Your task to perform on an android device: Open Google Chrome and click the shortcut for Amazon.com Image 0: 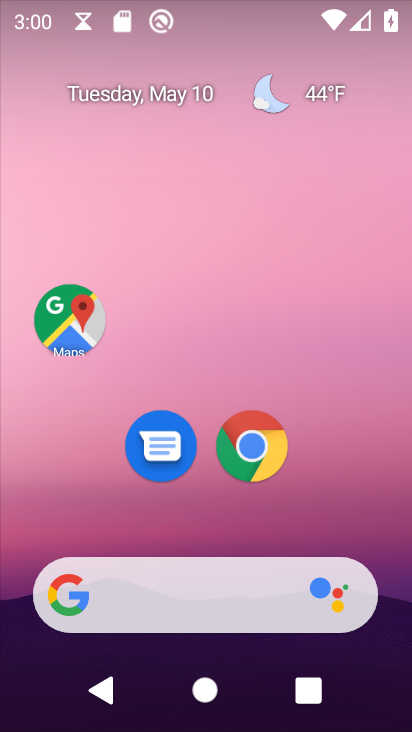
Step 0: drag from (376, 405) to (405, 147)
Your task to perform on an android device: Open Google Chrome and click the shortcut for Amazon.com Image 1: 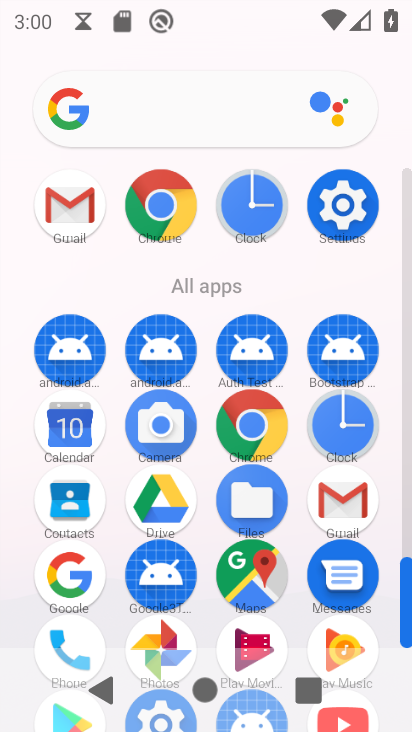
Step 1: click (134, 228)
Your task to perform on an android device: Open Google Chrome and click the shortcut for Amazon.com Image 2: 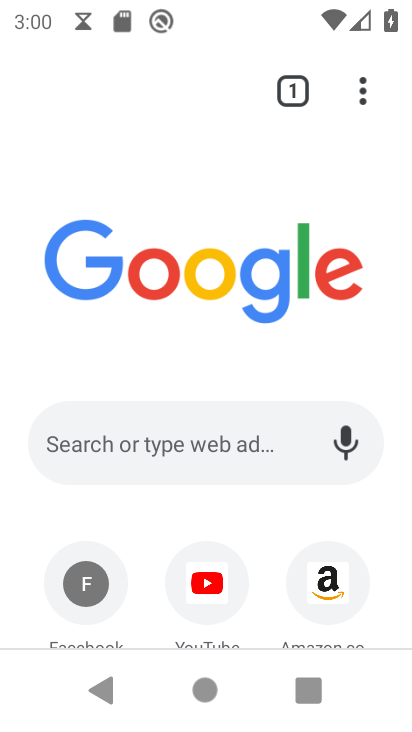
Step 2: drag from (399, 548) to (373, 169)
Your task to perform on an android device: Open Google Chrome and click the shortcut for Amazon.com Image 3: 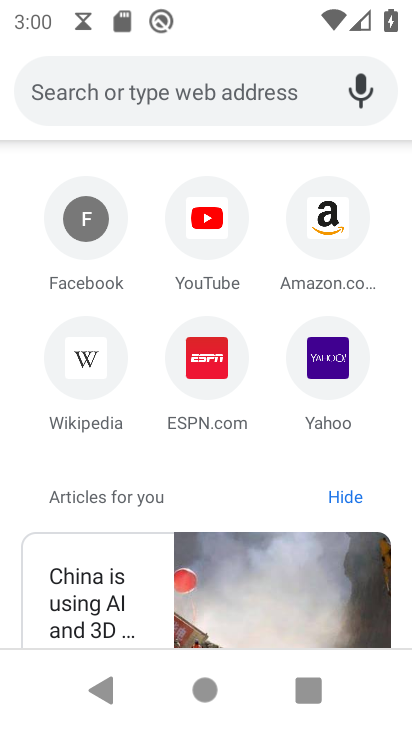
Step 3: click (319, 235)
Your task to perform on an android device: Open Google Chrome and click the shortcut for Amazon.com Image 4: 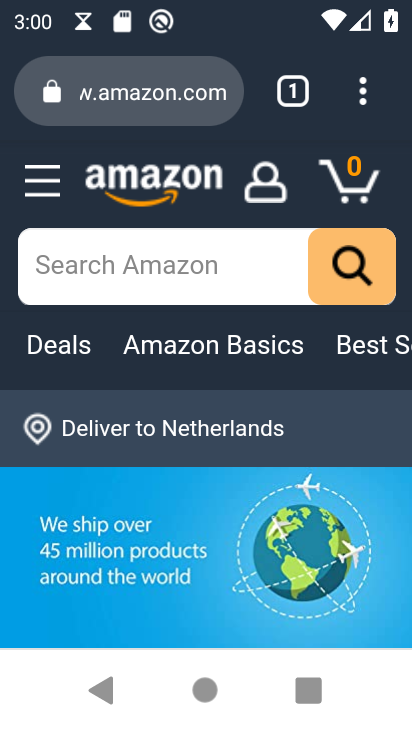
Step 4: drag from (361, 89) to (296, 311)
Your task to perform on an android device: Open Google Chrome and click the shortcut for Amazon.com Image 5: 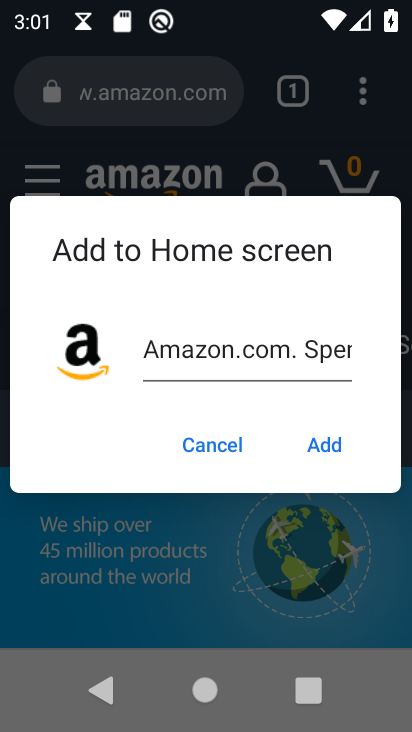
Step 5: click (338, 444)
Your task to perform on an android device: Open Google Chrome and click the shortcut for Amazon.com Image 6: 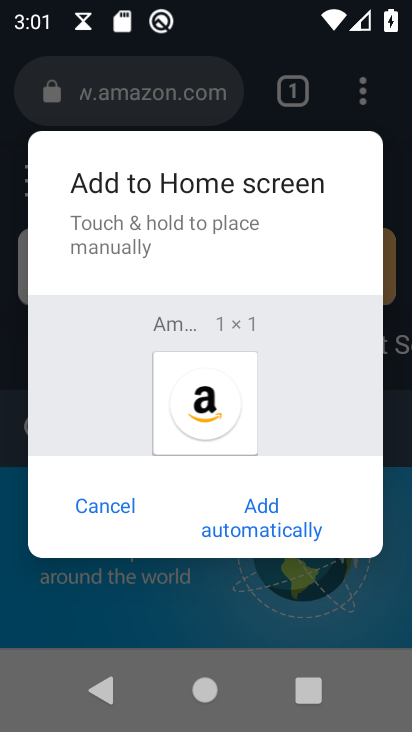
Step 6: click (261, 542)
Your task to perform on an android device: Open Google Chrome and click the shortcut for Amazon.com Image 7: 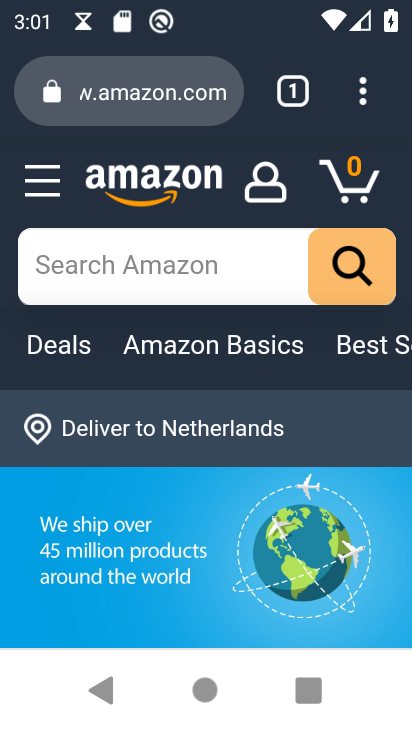
Step 7: task complete